Your task to perform on an android device: star an email in the gmail app Image 0: 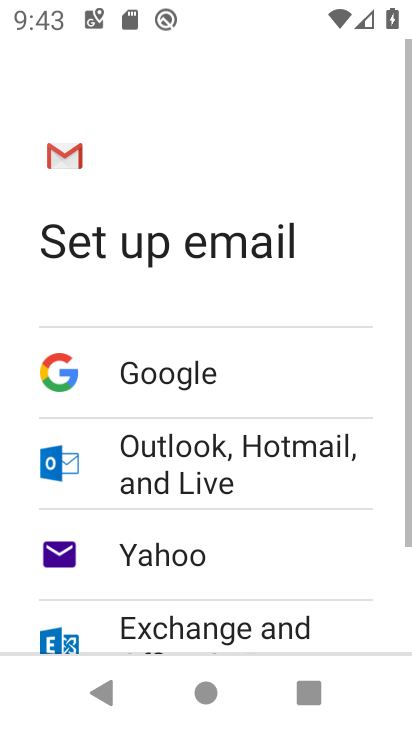
Step 0: press home button
Your task to perform on an android device: star an email in the gmail app Image 1: 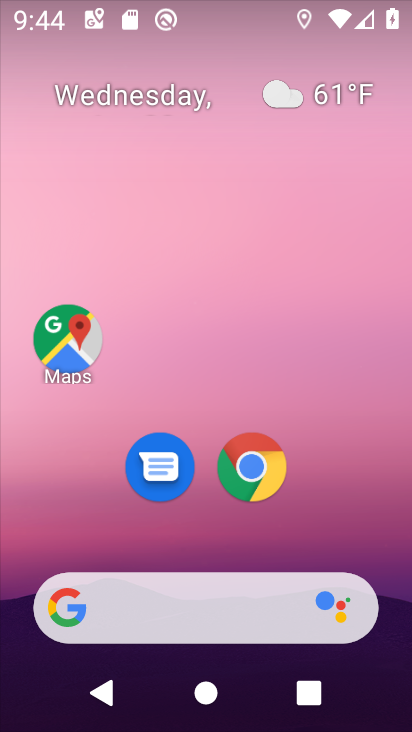
Step 1: drag from (373, 500) to (341, 66)
Your task to perform on an android device: star an email in the gmail app Image 2: 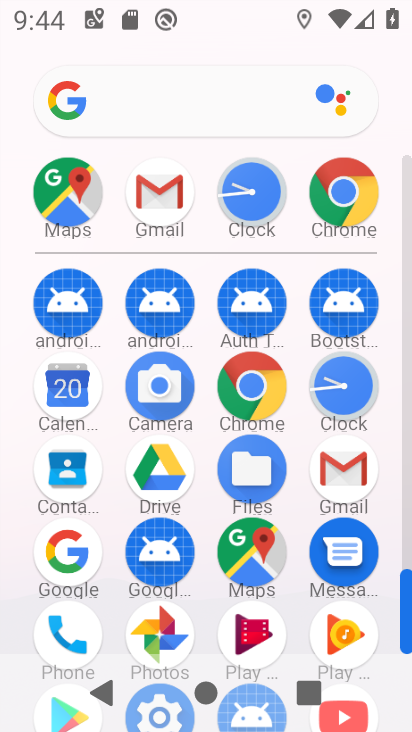
Step 2: click (154, 201)
Your task to perform on an android device: star an email in the gmail app Image 3: 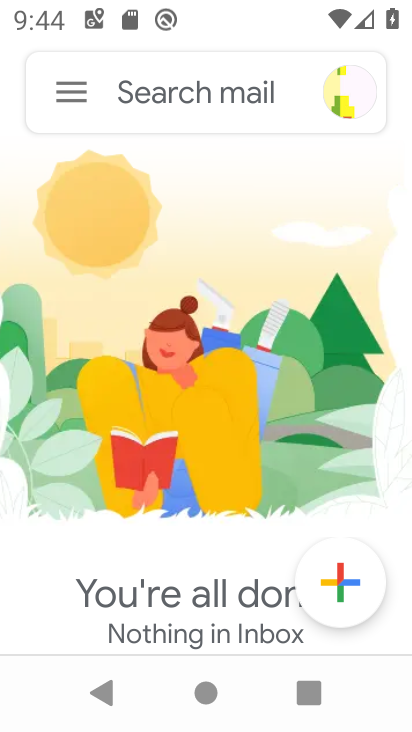
Step 3: task complete